Your task to perform on an android device: toggle priority inbox in the gmail app Image 0: 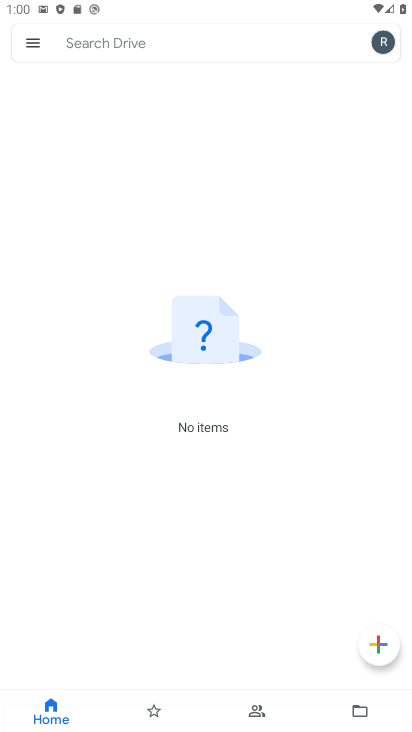
Step 0: press home button
Your task to perform on an android device: toggle priority inbox in the gmail app Image 1: 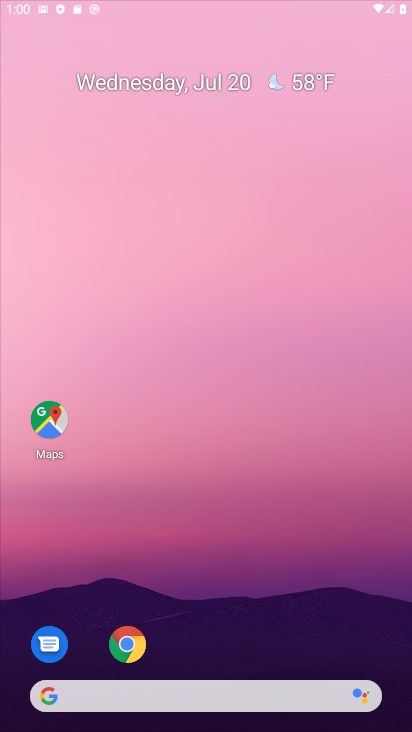
Step 1: drag from (204, 666) to (220, 148)
Your task to perform on an android device: toggle priority inbox in the gmail app Image 2: 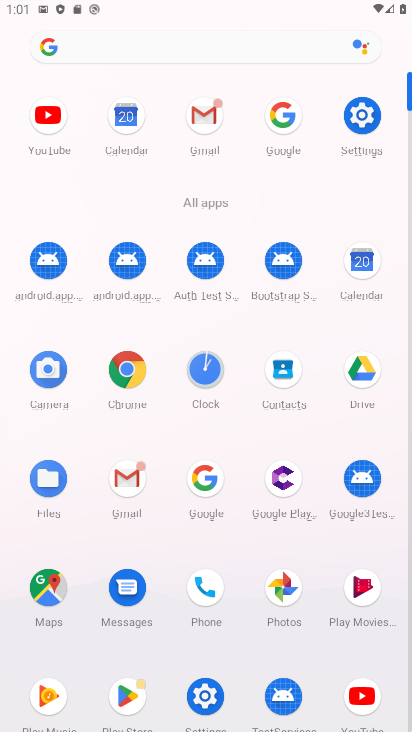
Step 2: click (205, 109)
Your task to perform on an android device: toggle priority inbox in the gmail app Image 3: 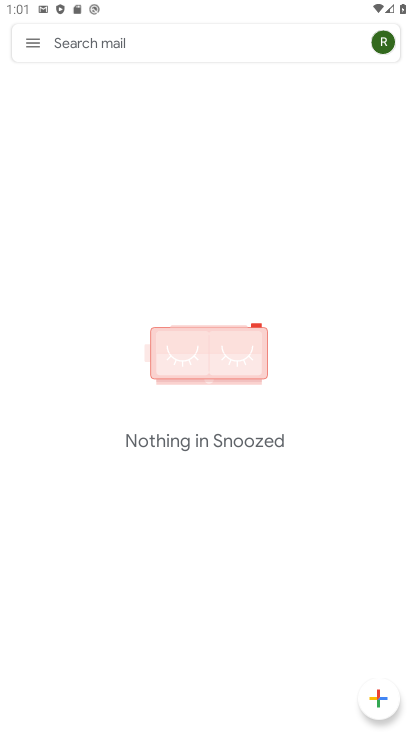
Step 3: click (36, 37)
Your task to perform on an android device: toggle priority inbox in the gmail app Image 4: 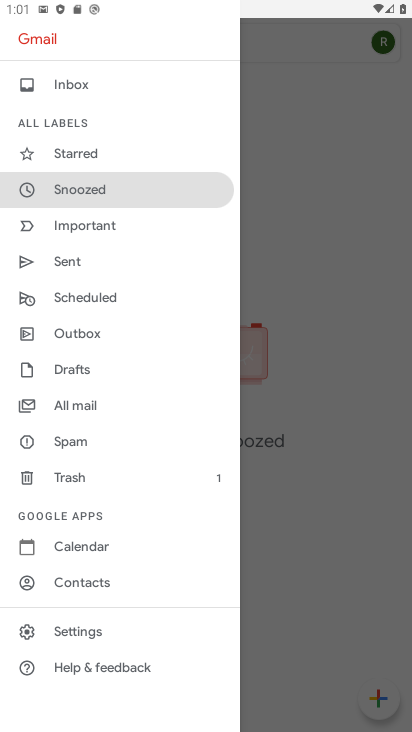
Step 4: click (99, 624)
Your task to perform on an android device: toggle priority inbox in the gmail app Image 5: 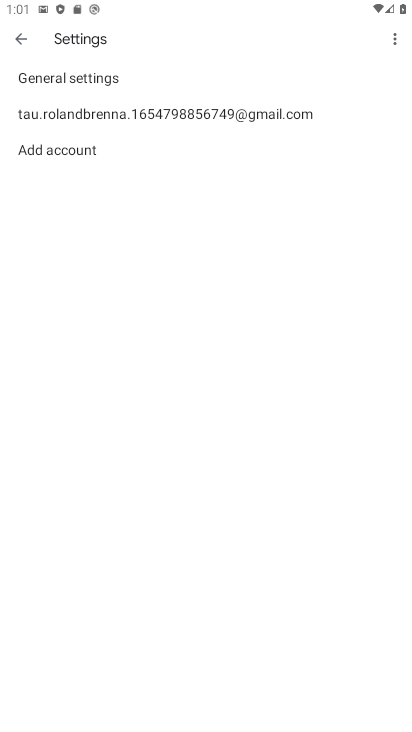
Step 5: click (119, 113)
Your task to perform on an android device: toggle priority inbox in the gmail app Image 6: 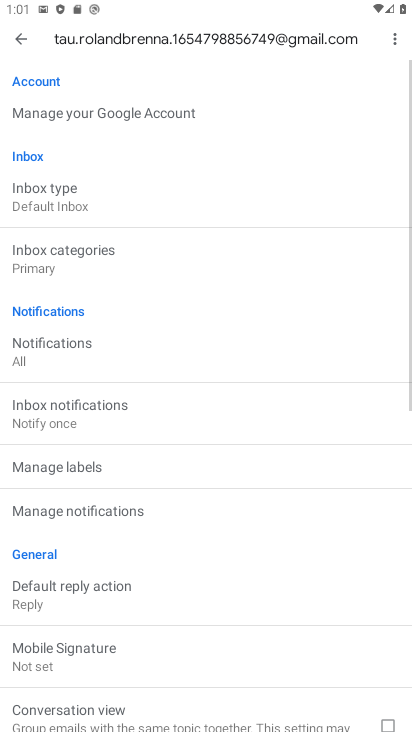
Step 6: click (43, 203)
Your task to perform on an android device: toggle priority inbox in the gmail app Image 7: 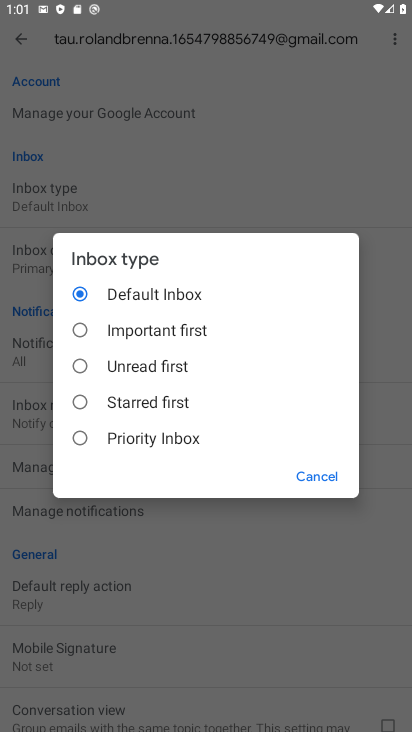
Step 7: click (79, 442)
Your task to perform on an android device: toggle priority inbox in the gmail app Image 8: 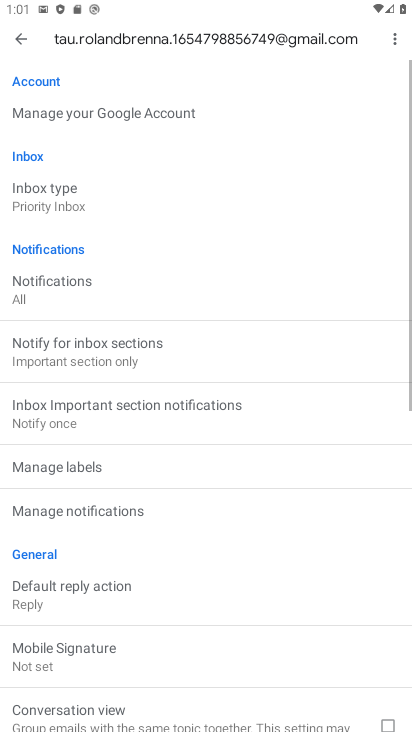
Step 8: task complete